Your task to perform on an android device: add a label to a message in the gmail app Image 0: 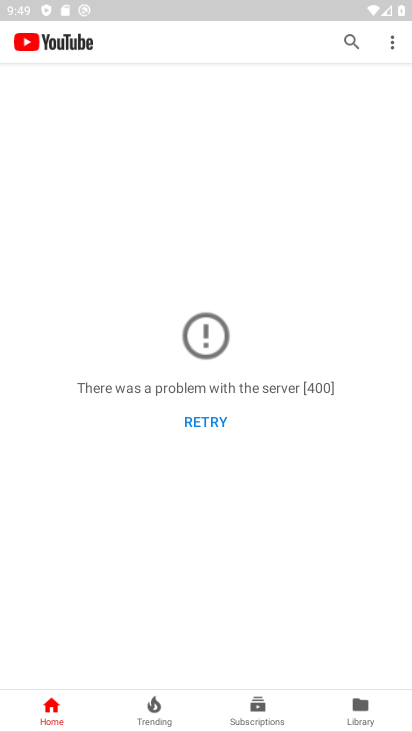
Step 0: press back button
Your task to perform on an android device: add a label to a message in the gmail app Image 1: 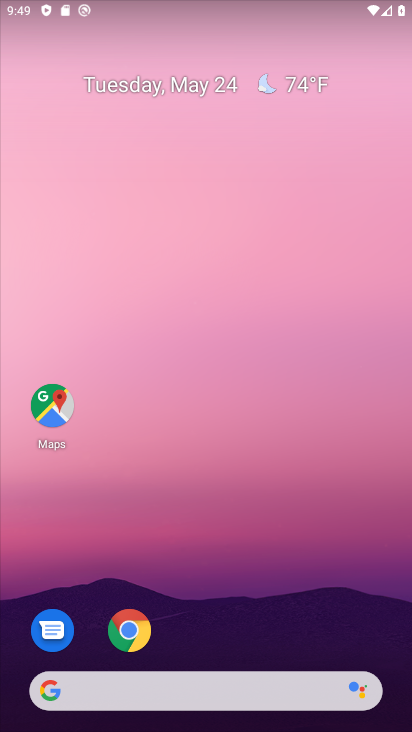
Step 1: drag from (184, 454) to (165, 284)
Your task to perform on an android device: add a label to a message in the gmail app Image 2: 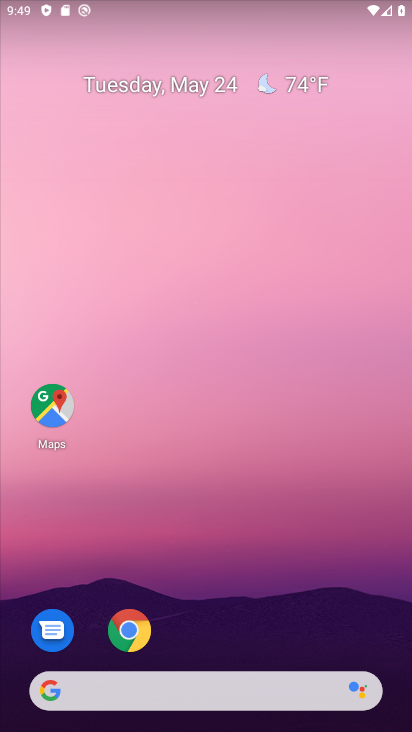
Step 2: click (165, 284)
Your task to perform on an android device: add a label to a message in the gmail app Image 3: 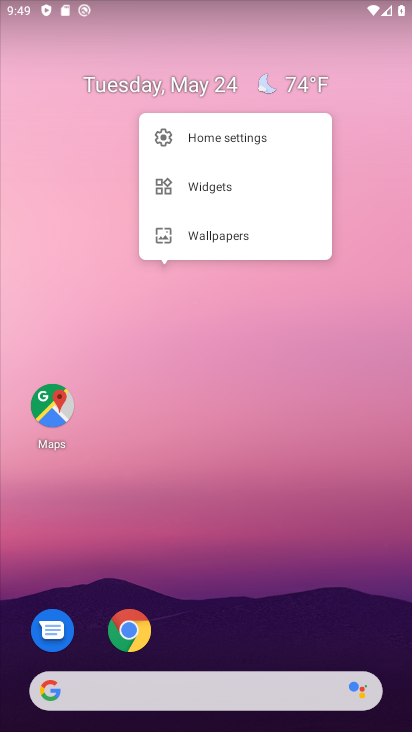
Step 3: drag from (127, 520) to (214, 33)
Your task to perform on an android device: add a label to a message in the gmail app Image 4: 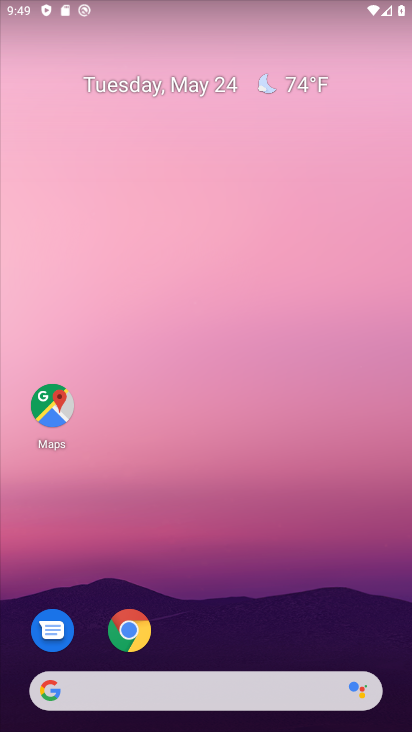
Step 4: drag from (228, 531) to (212, 98)
Your task to perform on an android device: add a label to a message in the gmail app Image 5: 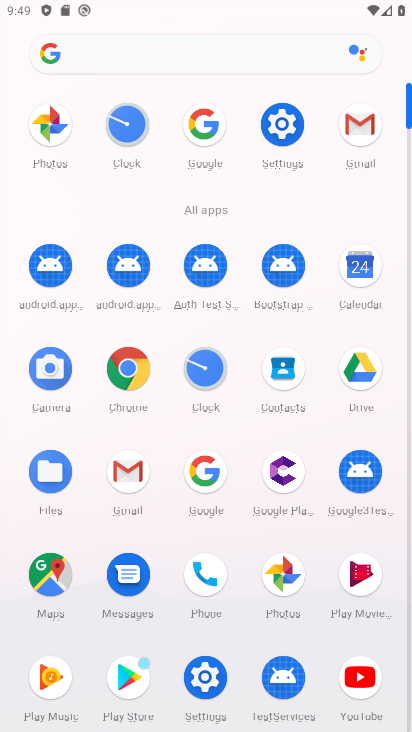
Step 5: drag from (141, 368) to (148, 275)
Your task to perform on an android device: add a label to a message in the gmail app Image 6: 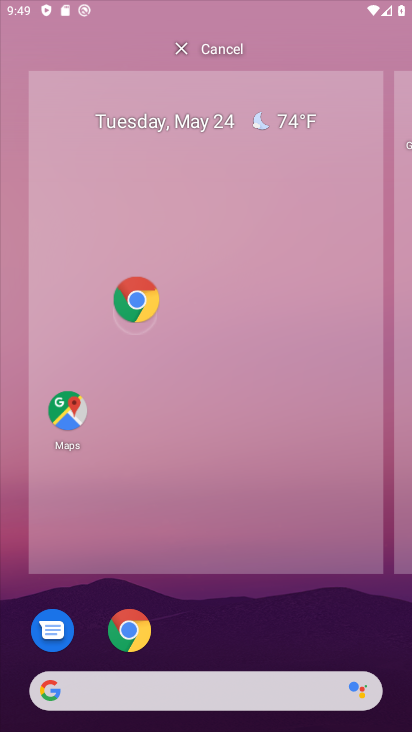
Step 6: click (123, 420)
Your task to perform on an android device: add a label to a message in the gmail app Image 7: 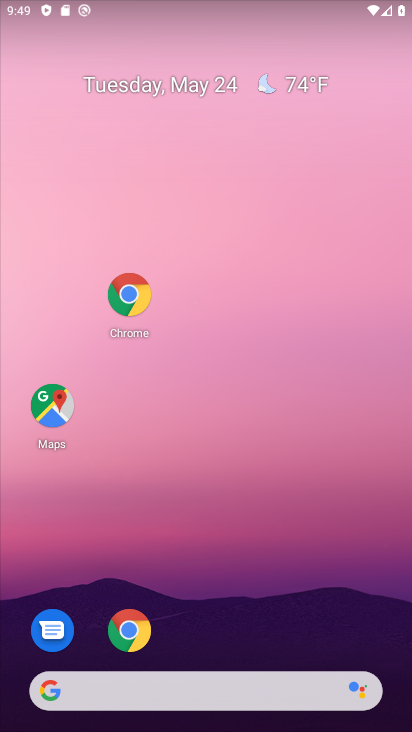
Step 7: drag from (185, 521) to (166, 433)
Your task to perform on an android device: add a label to a message in the gmail app Image 8: 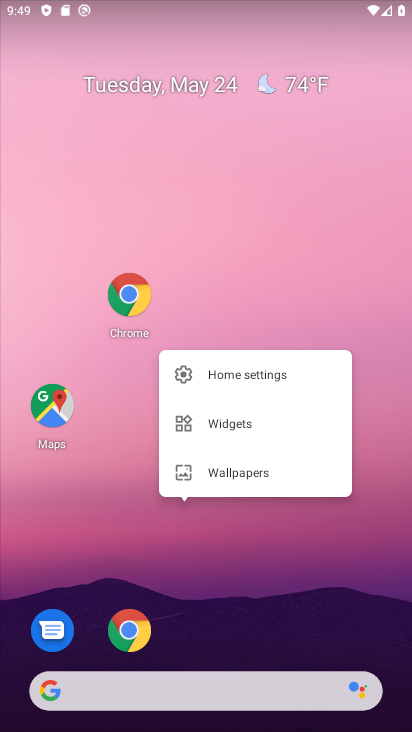
Step 8: click (251, 635)
Your task to perform on an android device: add a label to a message in the gmail app Image 9: 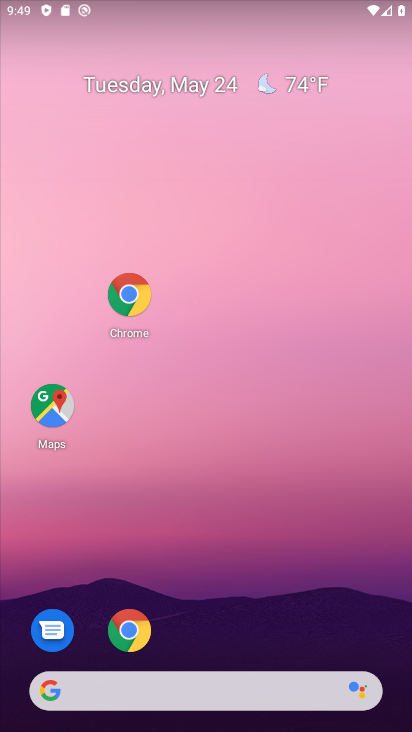
Step 9: drag from (251, 631) to (266, 2)
Your task to perform on an android device: add a label to a message in the gmail app Image 10: 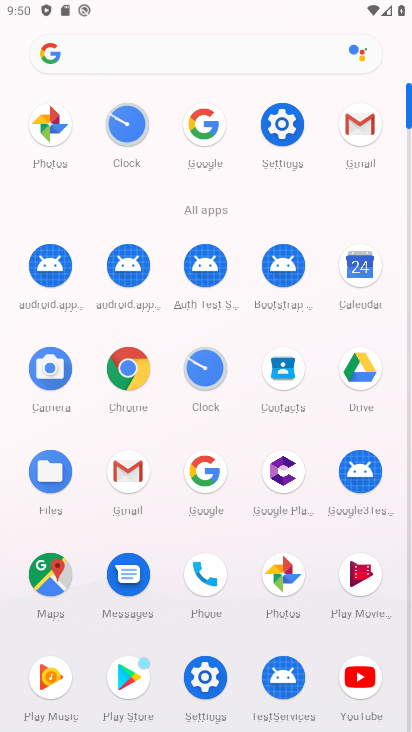
Step 10: click (112, 462)
Your task to perform on an android device: add a label to a message in the gmail app Image 11: 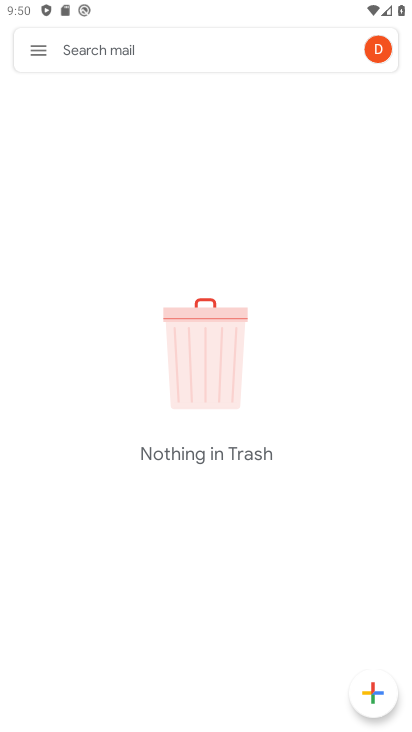
Step 11: click (51, 61)
Your task to perform on an android device: add a label to a message in the gmail app Image 12: 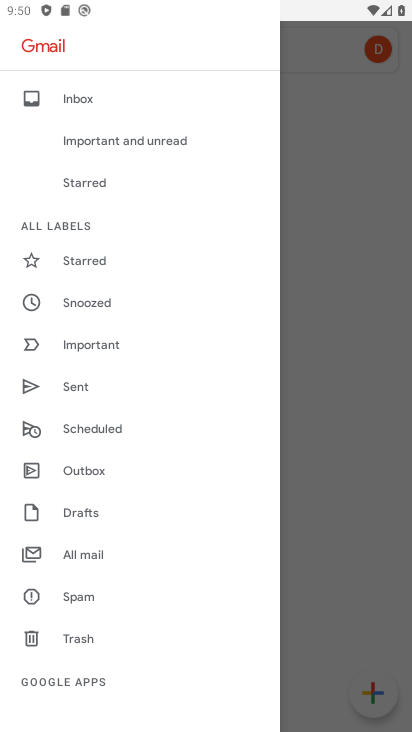
Step 12: click (73, 561)
Your task to perform on an android device: add a label to a message in the gmail app Image 13: 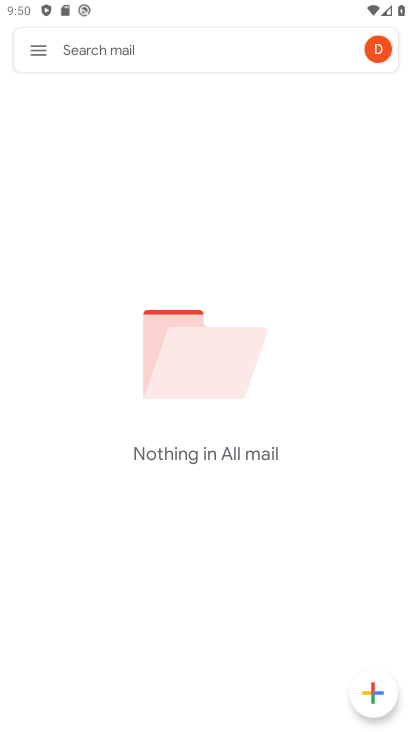
Step 13: task complete